Your task to perform on an android device: Add "asus zenbook" to the cart on costco, then select checkout. Image 0: 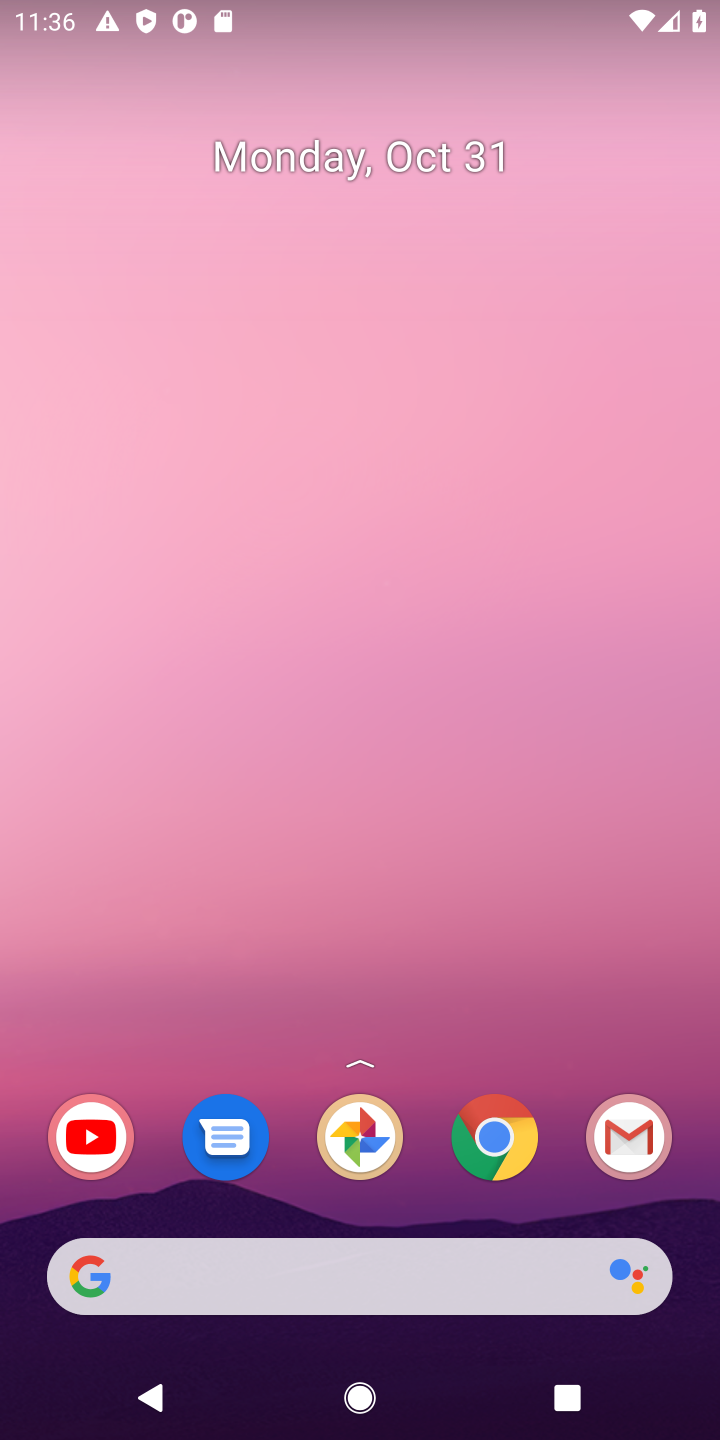
Step 0: click (493, 1138)
Your task to perform on an android device: Add "asus zenbook" to the cart on costco, then select checkout. Image 1: 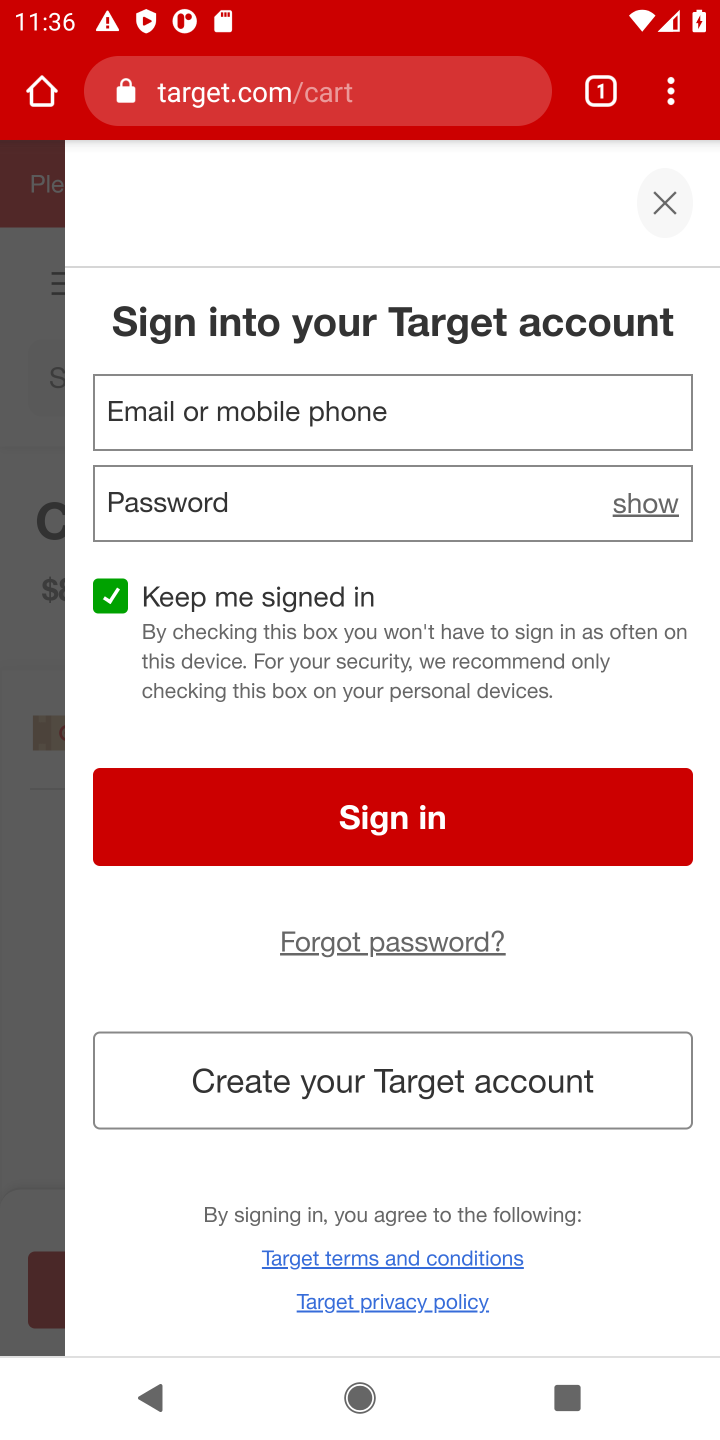
Step 1: click (379, 88)
Your task to perform on an android device: Add "asus zenbook" to the cart on costco, then select checkout. Image 2: 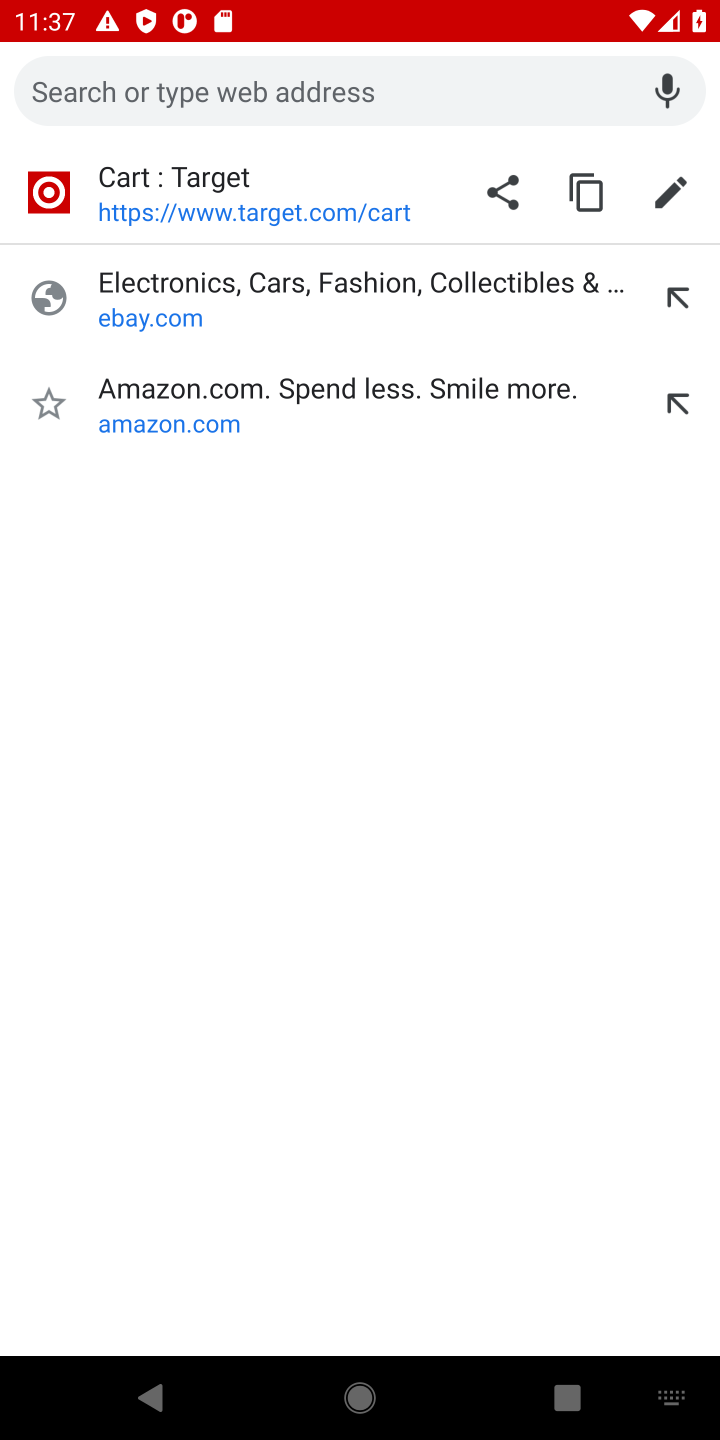
Step 2: type "costco"
Your task to perform on an android device: Add "asus zenbook" to the cart on costco, then select checkout. Image 3: 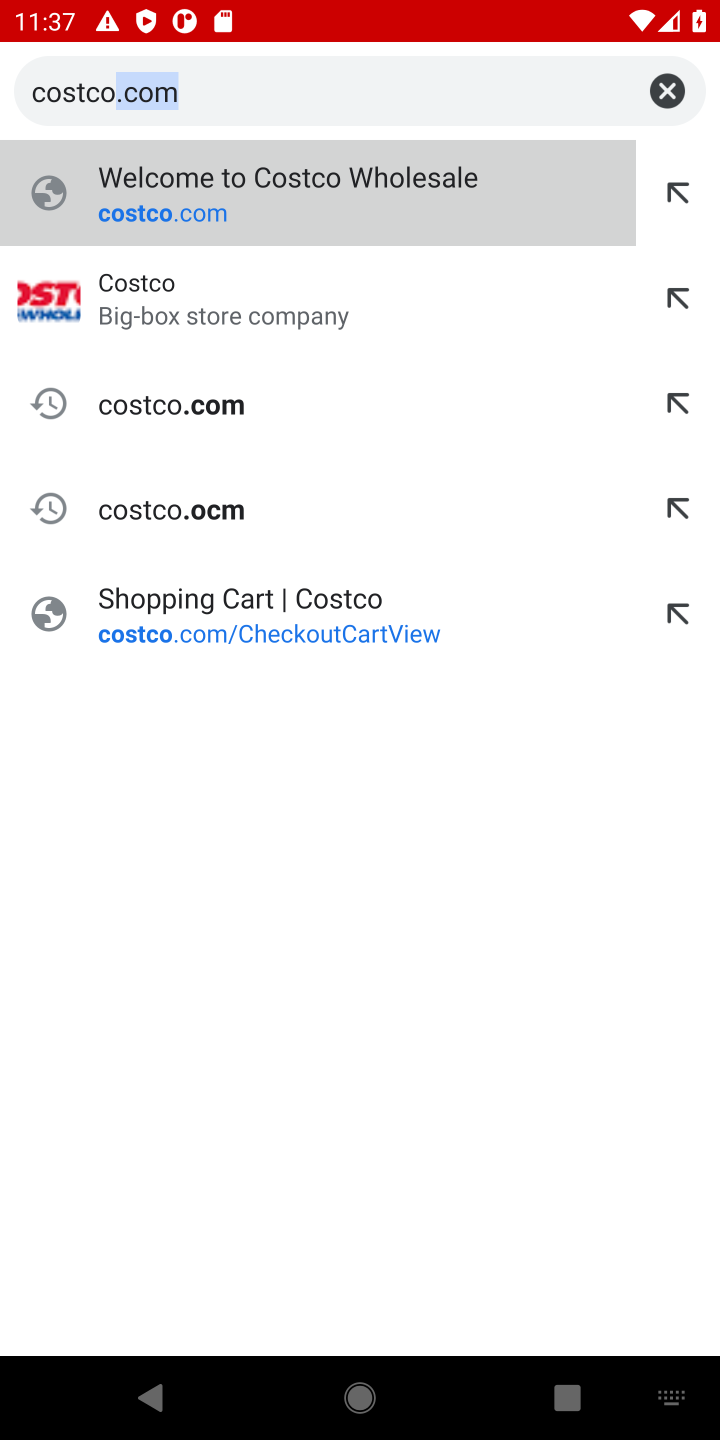
Step 3: click (184, 316)
Your task to perform on an android device: Add "asus zenbook" to the cart on costco, then select checkout. Image 4: 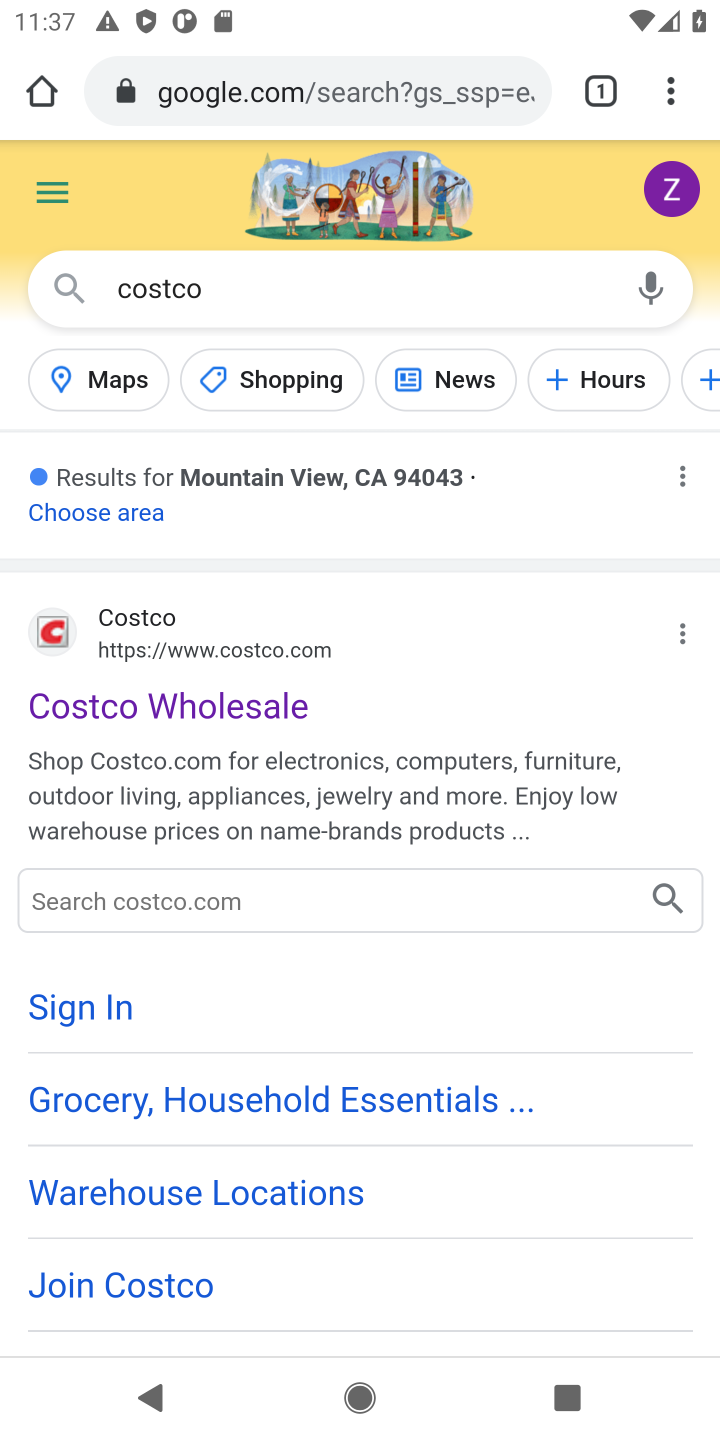
Step 4: click (182, 710)
Your task to perform on an android device: Add "asus zenbook" to the cart on costco, then select checkout. Image 5: 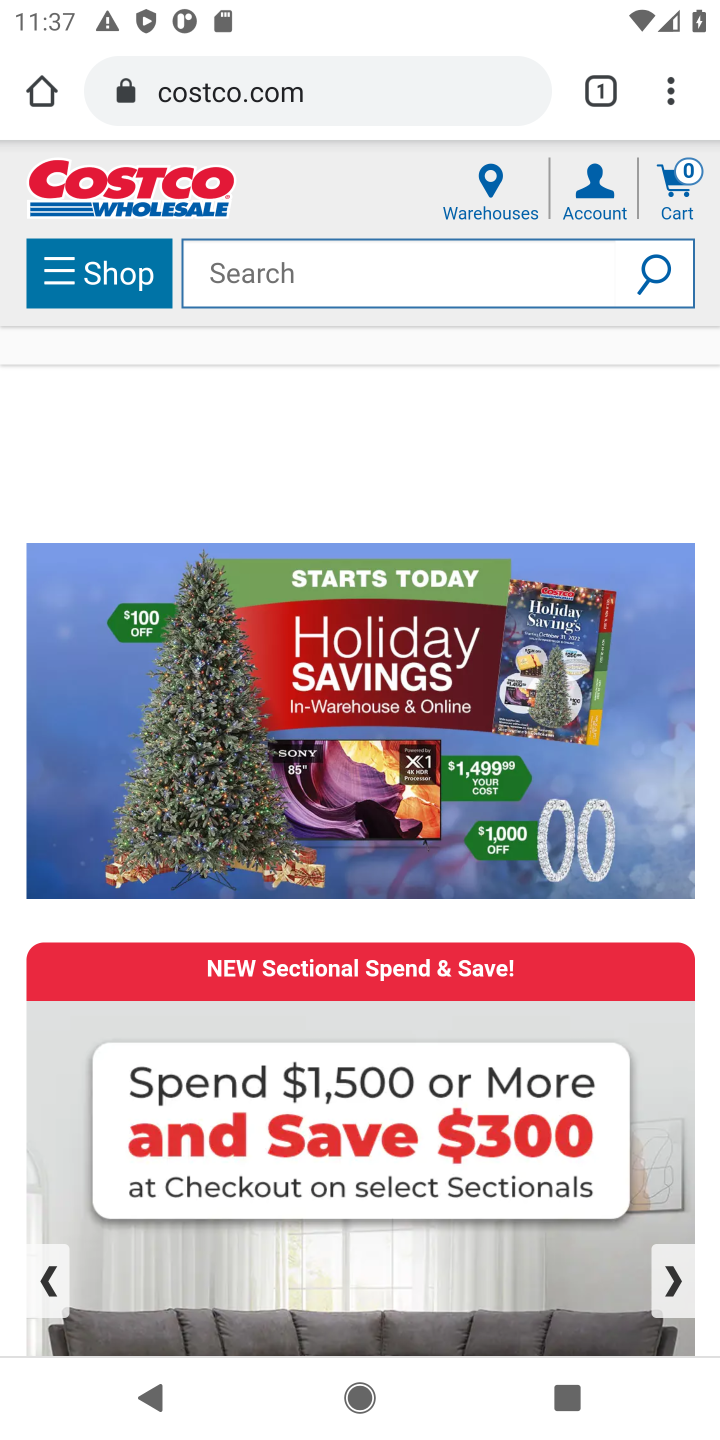
Step 5: click (373, 278)
Your task to perform on an android device: Add "asus zenbook" to the cart on costco, then select checkout. Image 6: 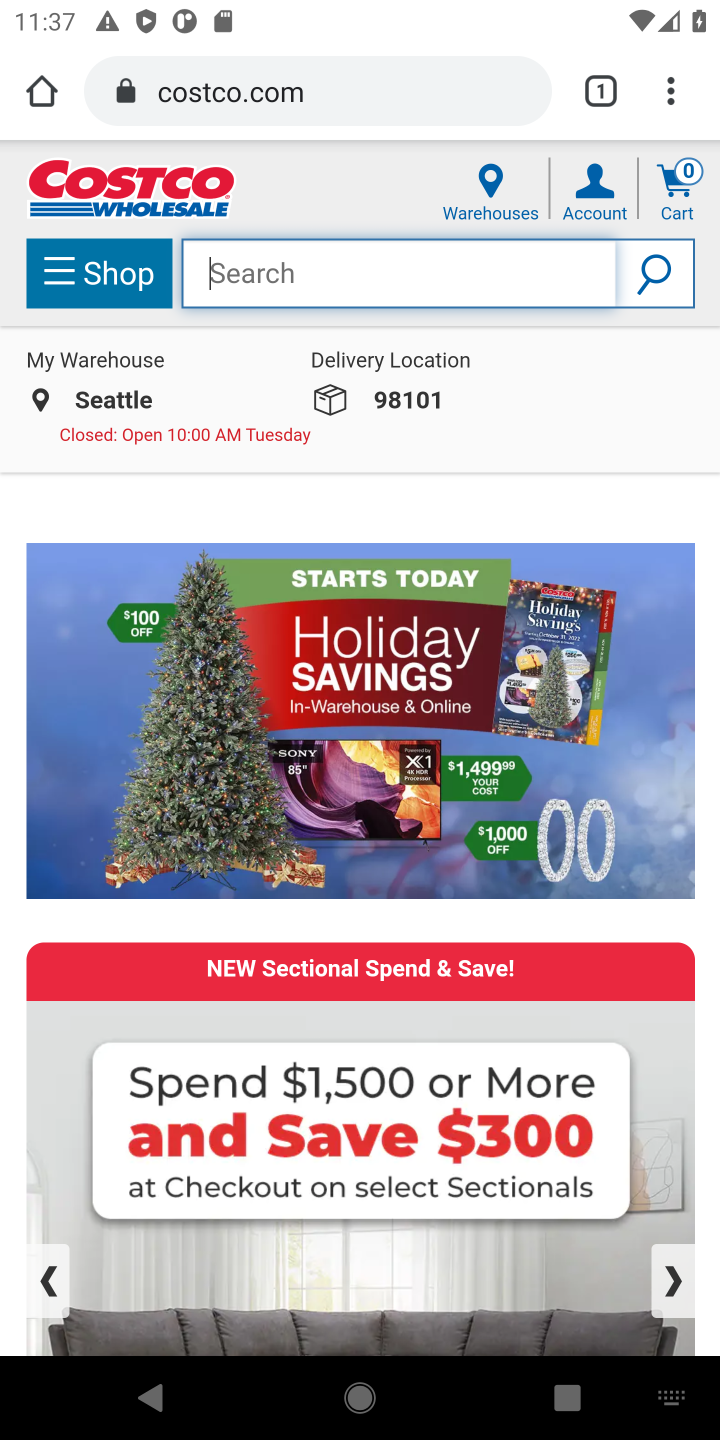
Step 6: type "asus zenbook"
Your task to perform on an android device: Add "asus zenbook" to the cart on costco, then select checkout. Image 7: 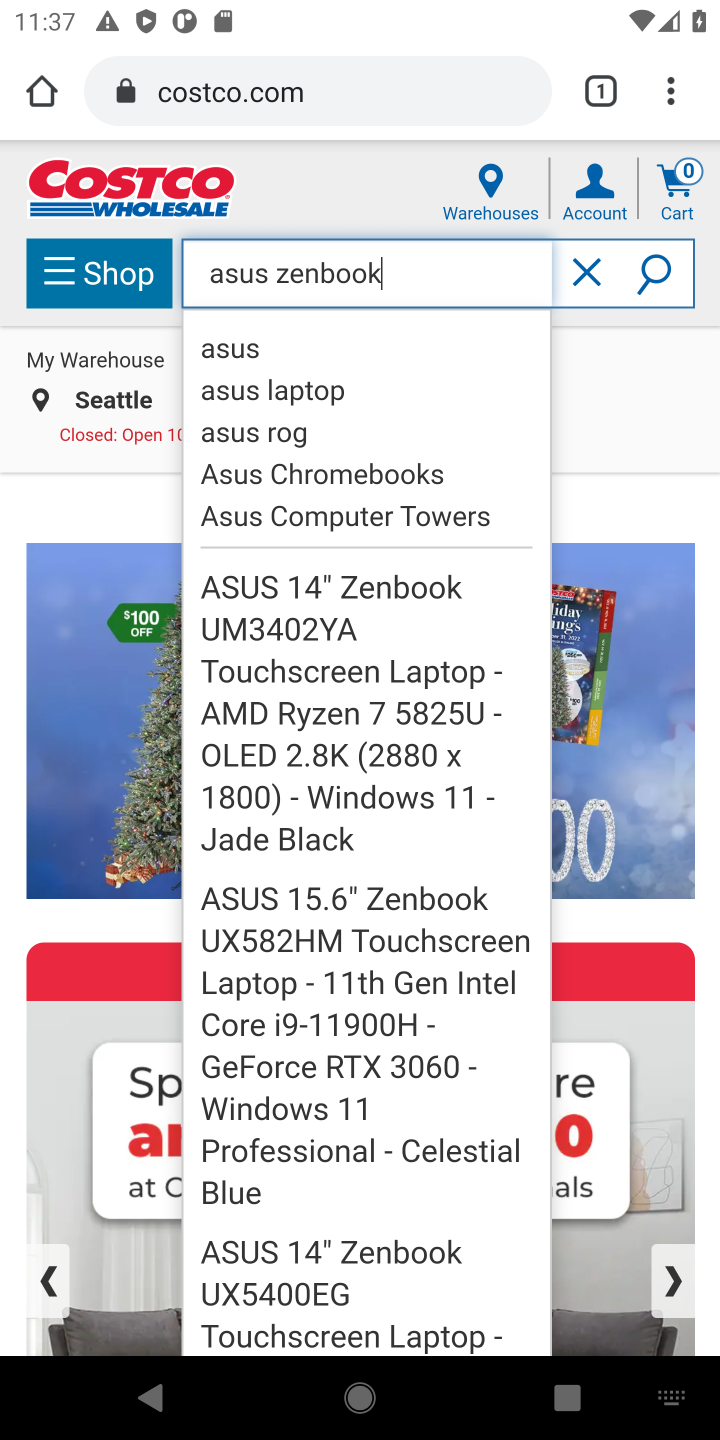
Step 7: click (651, 276)
Your task to perform on an android device: Add "asus zenbook" to the cart on costco, then select checkout. Image 8: 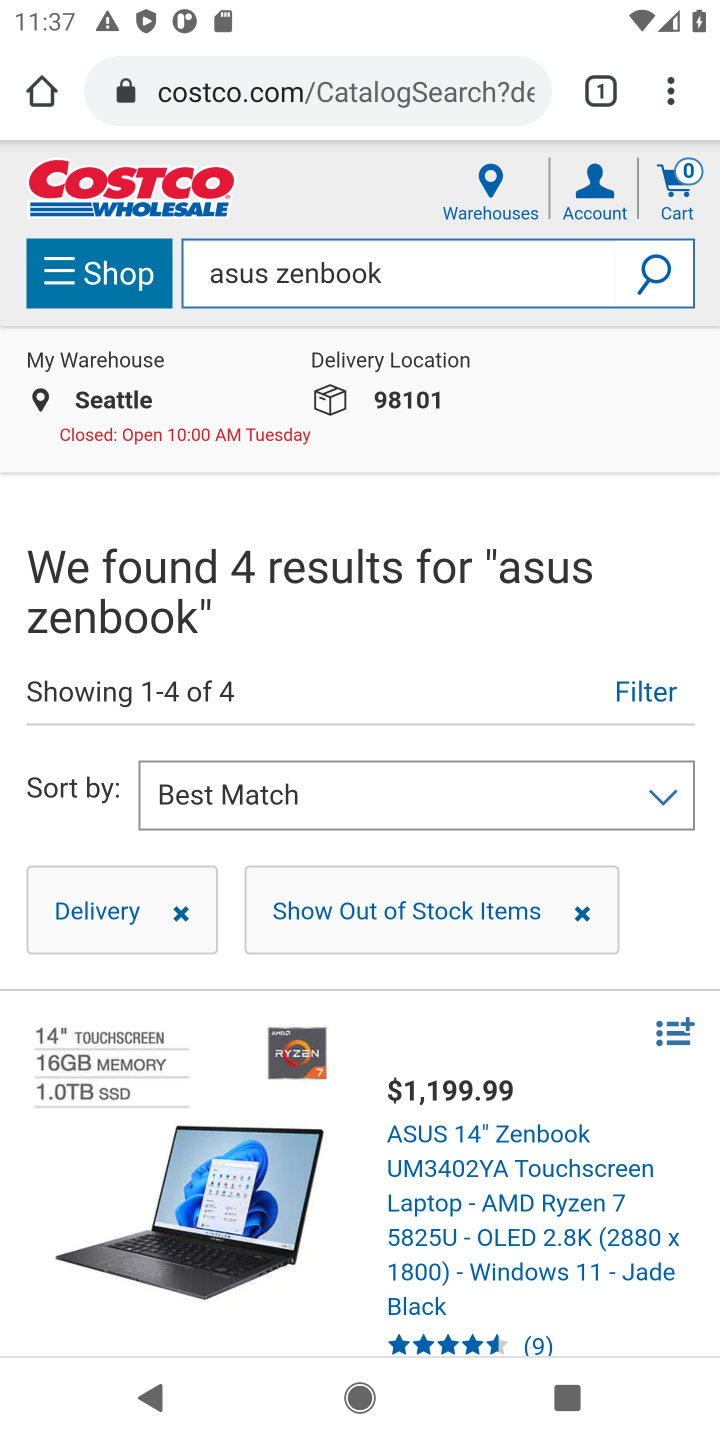
Step 8: click (472, 1154)
Your task to perform on an android device: Add "asus zenbook" to the cart on costco, then select checkout. Image 9: 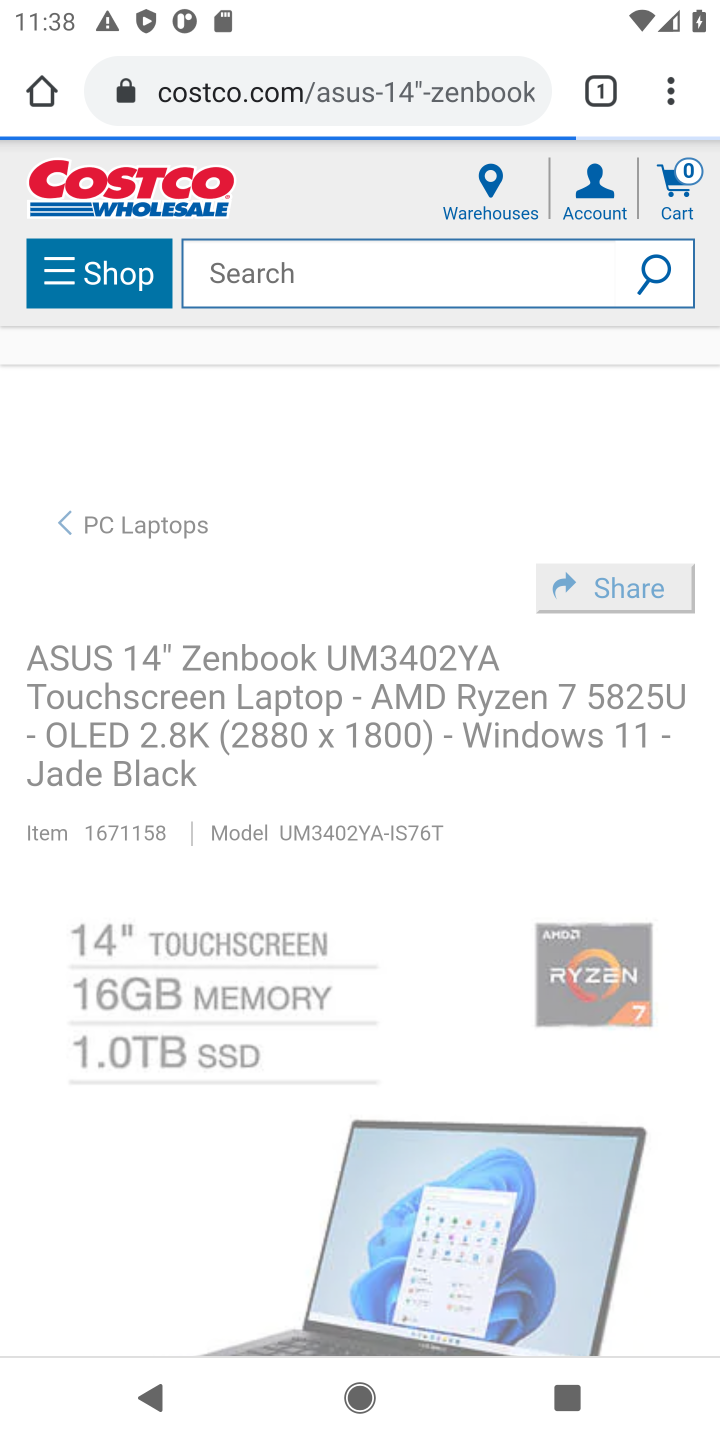
Step 9: drag from (435, 994) to (488, 437)
Your task to perform on an android device: Add "asus zenbook" to the cart on costco, then select checkout. Image 10: 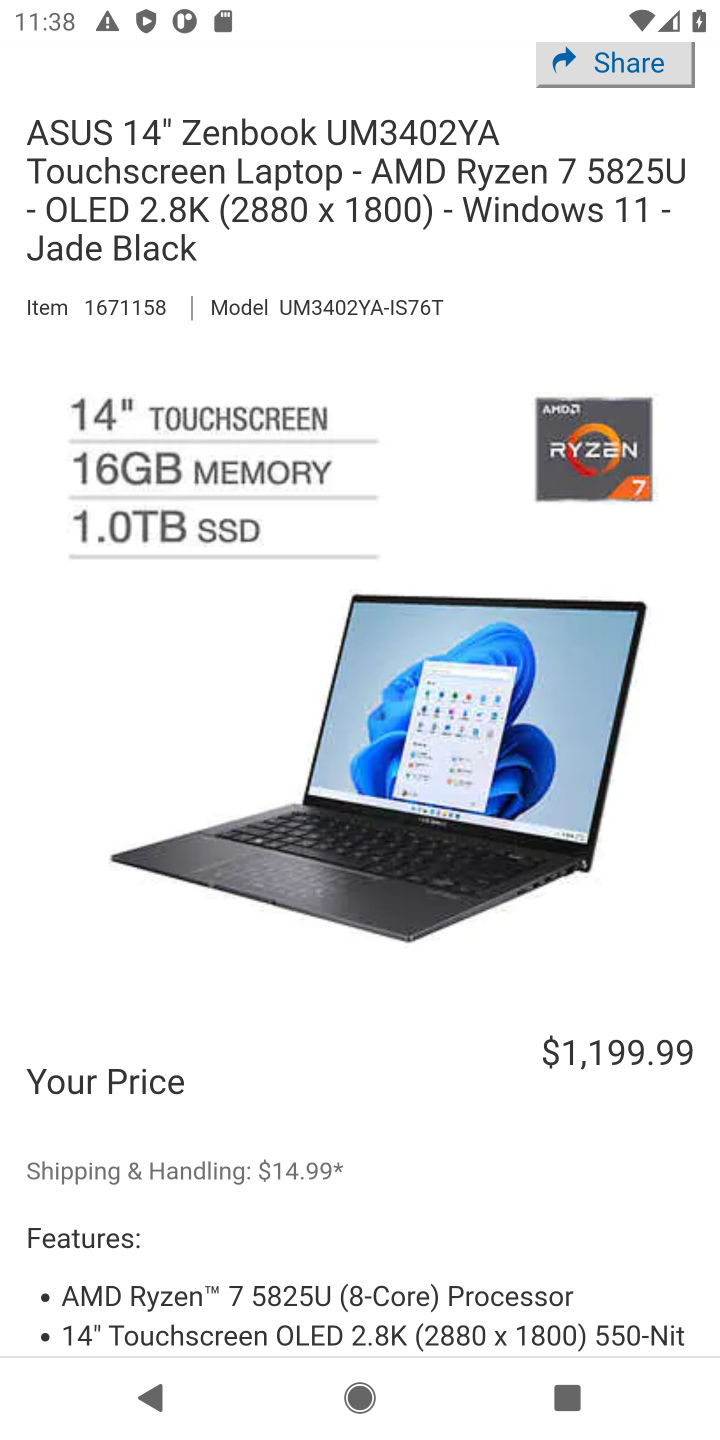
Step 10: drag from (447, 1104) to (514, 515)
Your task to perform on an android device: Add "asus zenbook" to the cart on costco, then select checkout. Image 11: 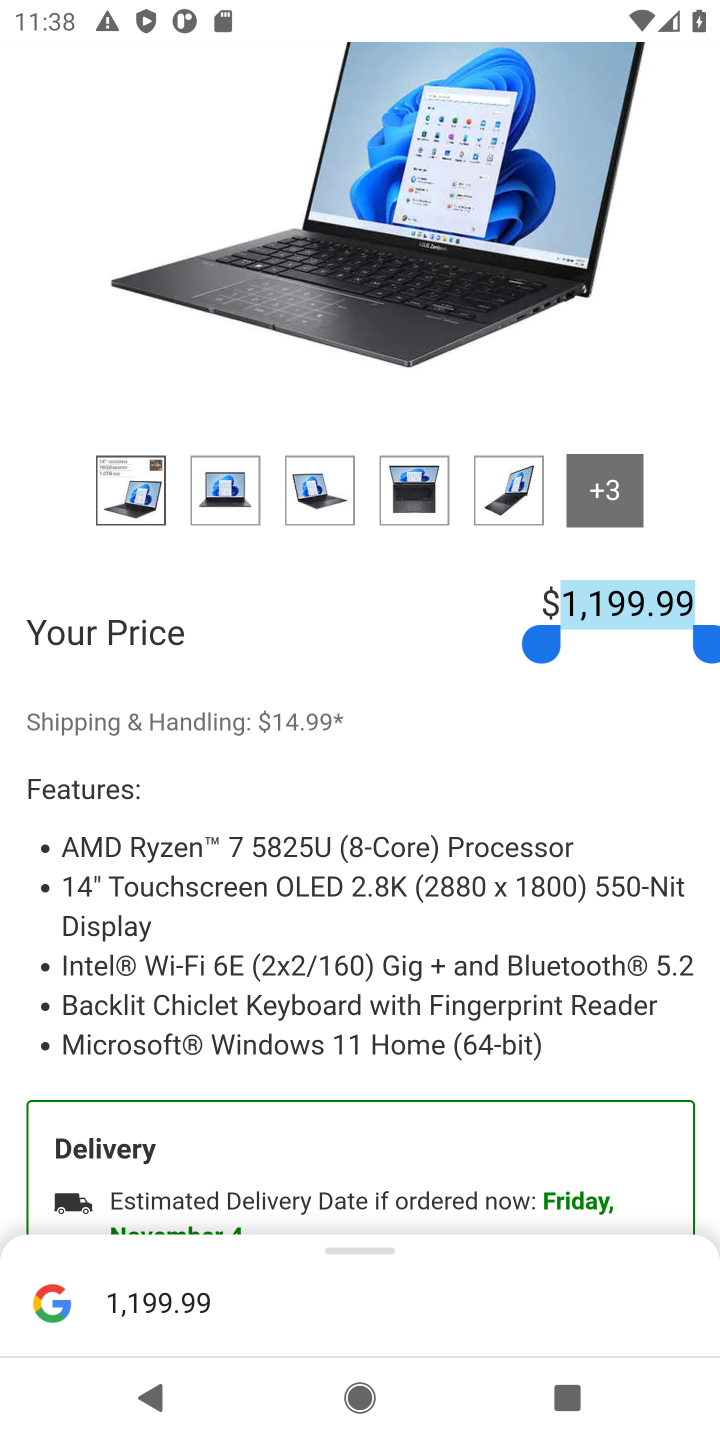
Step 11: drag from (400, 294) to (416, 73)
Your task to perform on an android device: Add "asus zenbook" to the cart on costco, then select checkout. Image 12: 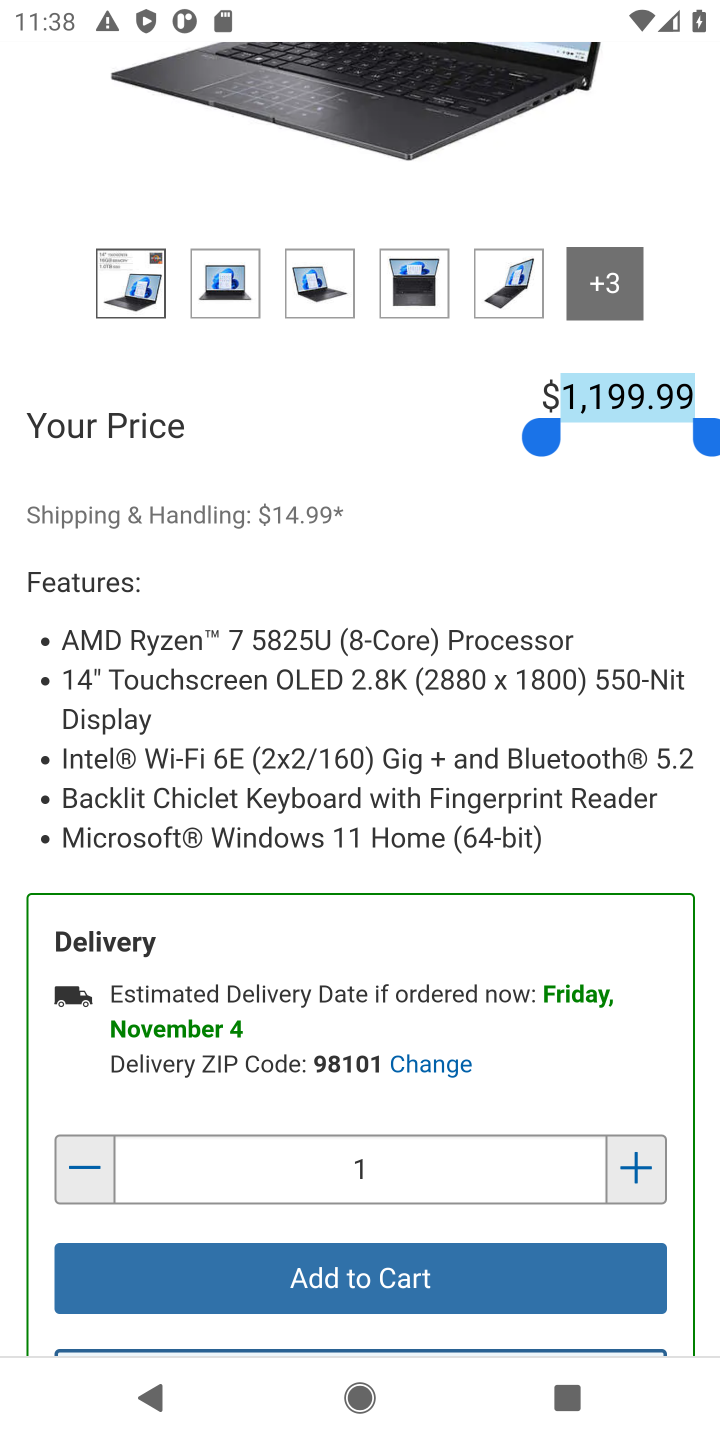
Step 12: click (356, 1280)
Your task to perform on an android device: Add "asus zenbook" to the cart on costco, then select checkout. Image 13: 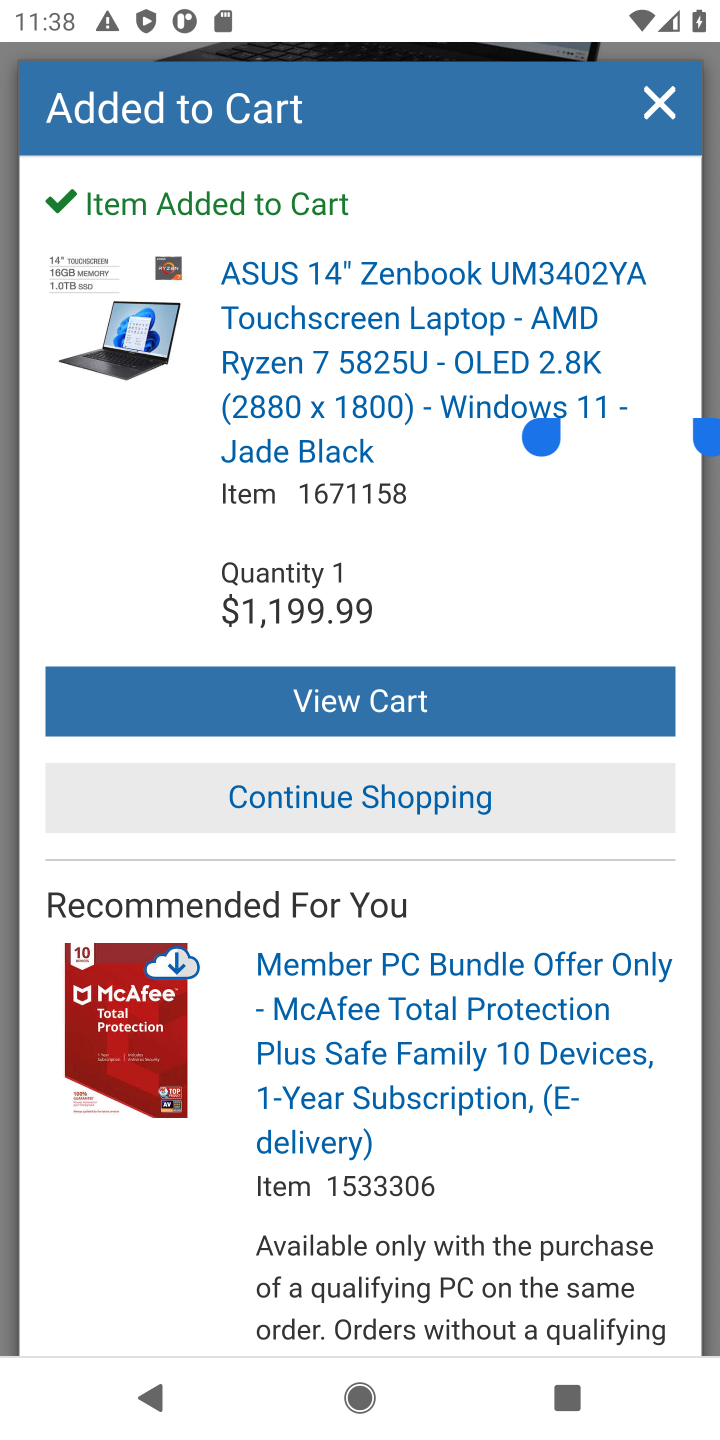
Step 13: click (414, 709)
Your task to perform on an android device: Add "asus zenbook" to the cart on costco, then select checkout. Image 14: 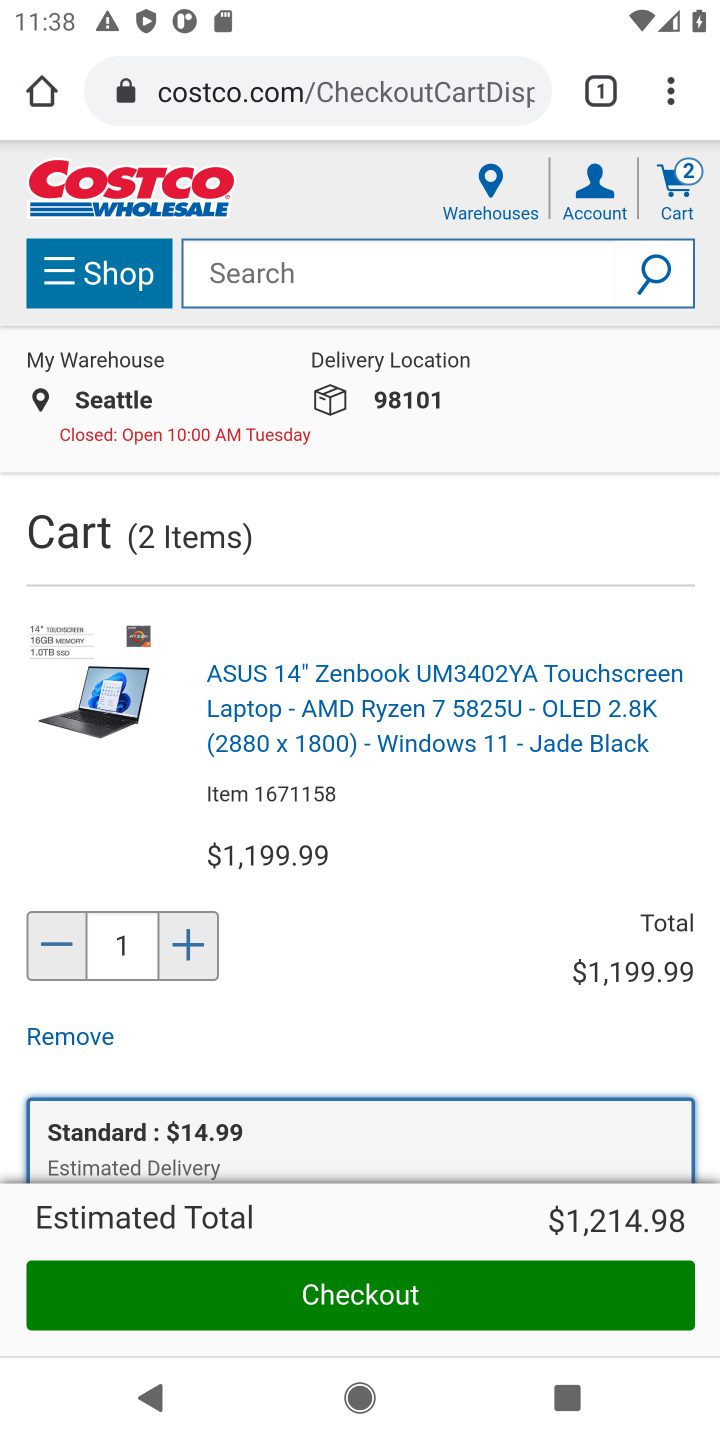
Step 14: click (382, 1302)
Your task to perform on an android device: Add "asus zenbook" to the cart on costco, then select checkout. Image 15: 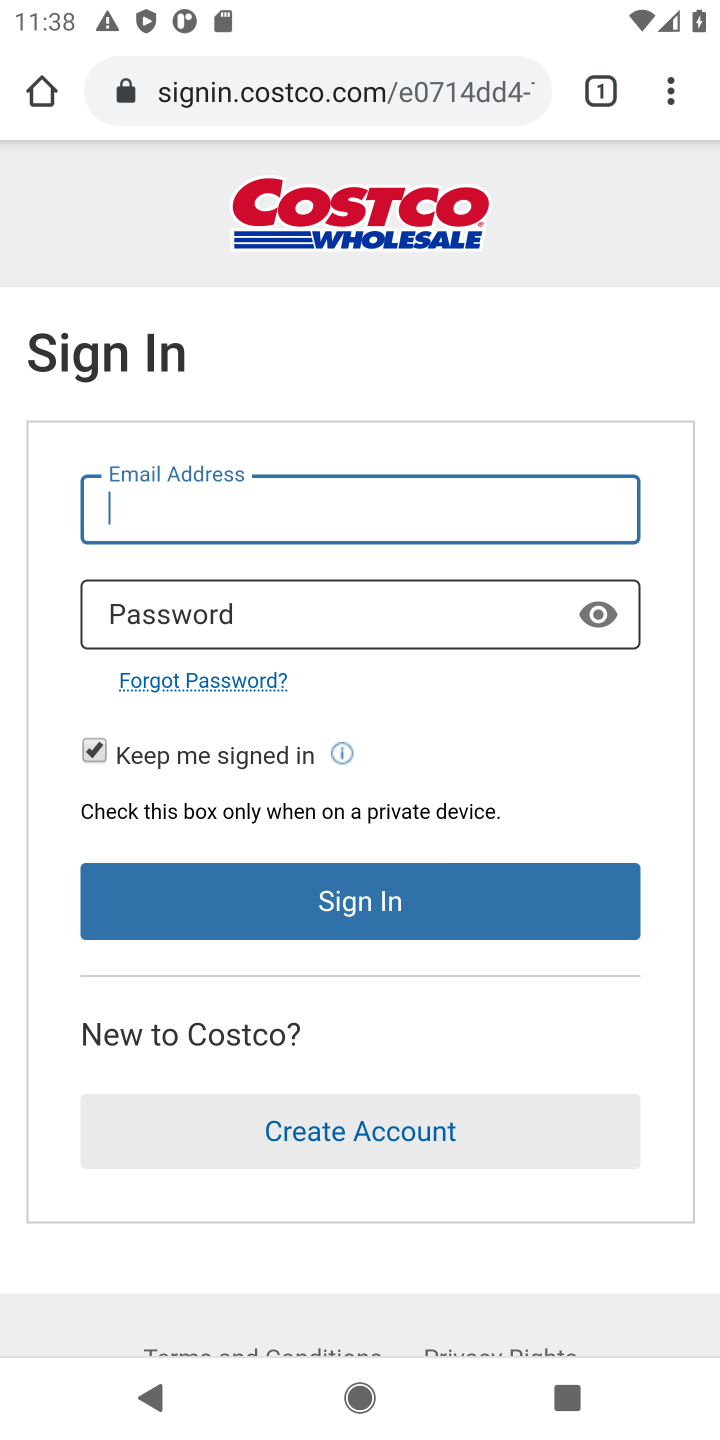
Step 15: task complete